Your task to perform on an android device: Open Google Chrome and click the shortcut for Amazon.com Image 0: 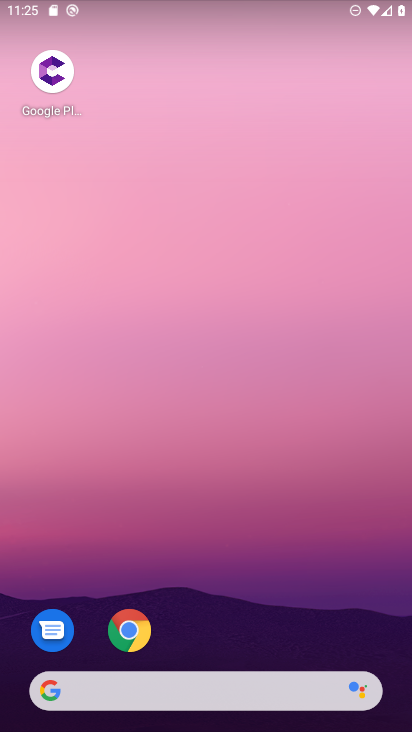
Step 0: click (125, 626)
Your task to perform on an android device: Open Google Chrome and click the shortcut for Amazon.com Image 1: 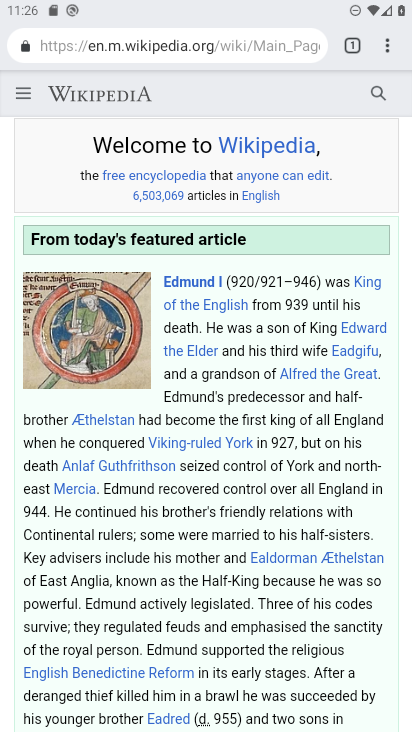
Step 1: click (161, 51)
Your task to perform on an android device: Open Google Chrome and click the shortcut for Amazon.com Image 2: 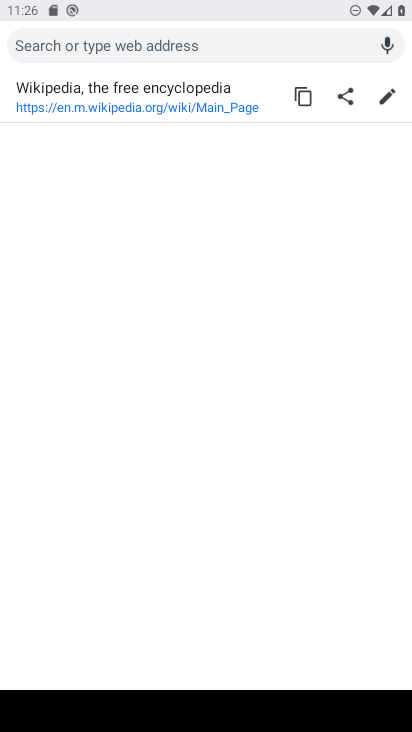
Step 2: type "amazon.com"
Your task to perform on an android device: Open Google Chrome and click the shortcut for Amazon.com Image 3: 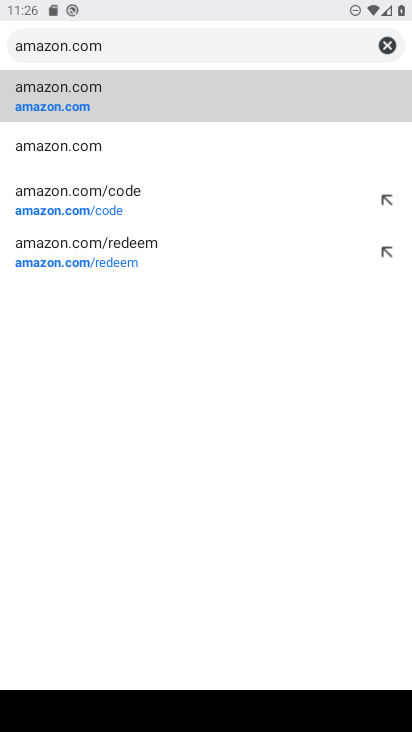
Step 3: click (95, 103)
Your task to perform on an android device: Open Google Chrome and click the shortcut for Amazon.com Image 4: 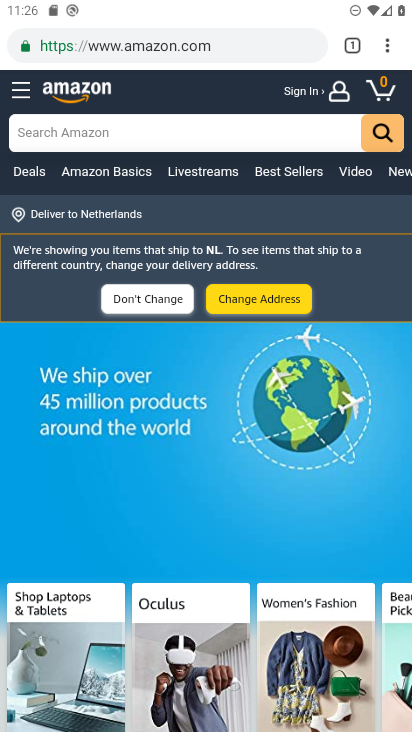
Step 4: task complete